Your task to perform on an android device: Open calendar and show me the second week of next month Image 0: 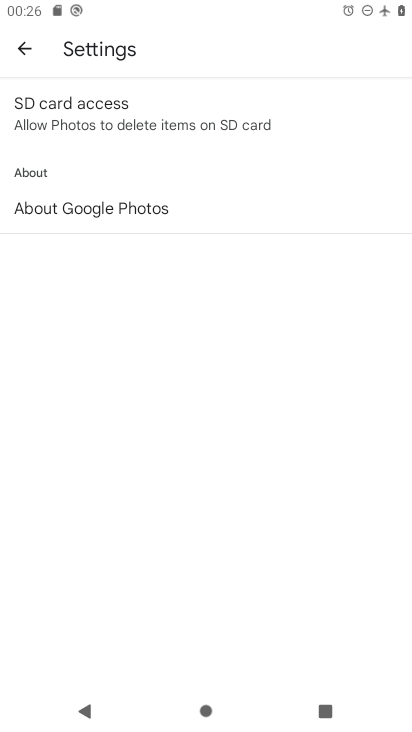
Step 0: press home button
Your task to perform on an android device: Open calendar and show me the second week of next month Image 1: 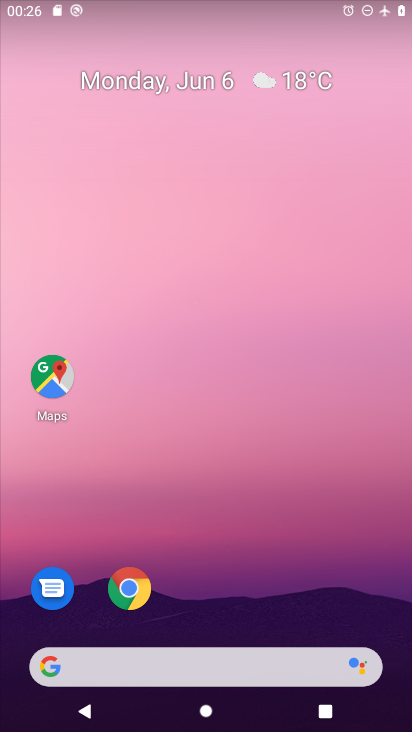
Step 1: drag from (318, 607) to (353, 262)
Your task to perform on an android device: Open calendar and show me the second week of next month Image 2: 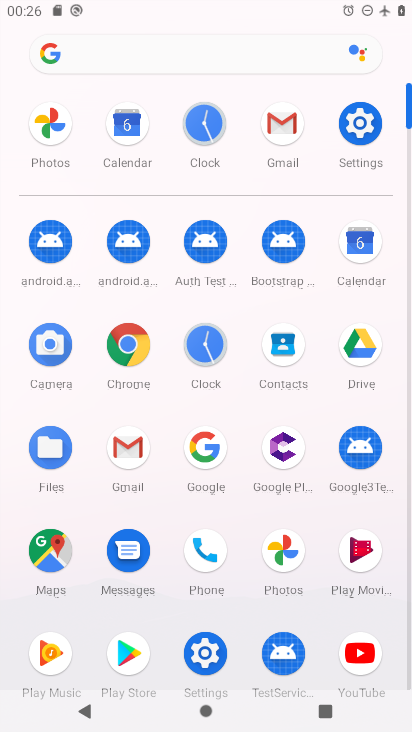
Step 2: click (365, 254)
Your task to perform on an android device: Open calendar and show me the second week of next month Image 3: 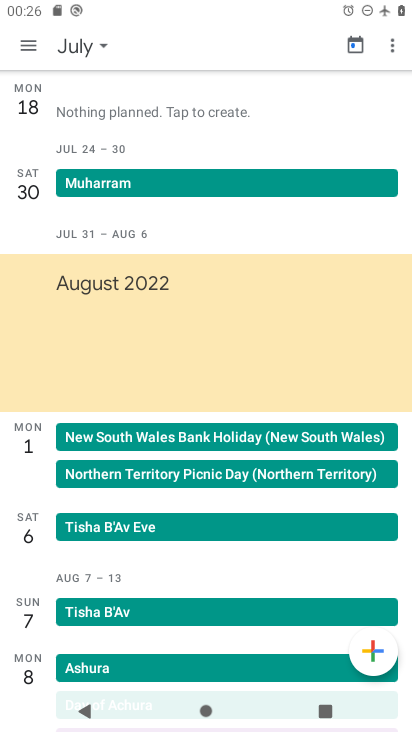
Step 3: click (105, 46)
Your task to perform on an android device: Open calendar and show me the second week of next month Image 4: 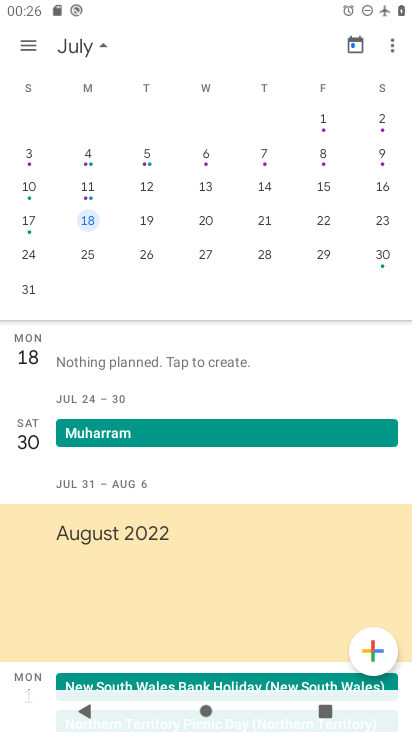
Step 4: click (89, 188)
Your task to perform on an android device: Open calendar and show me the second week of next month Image 5: 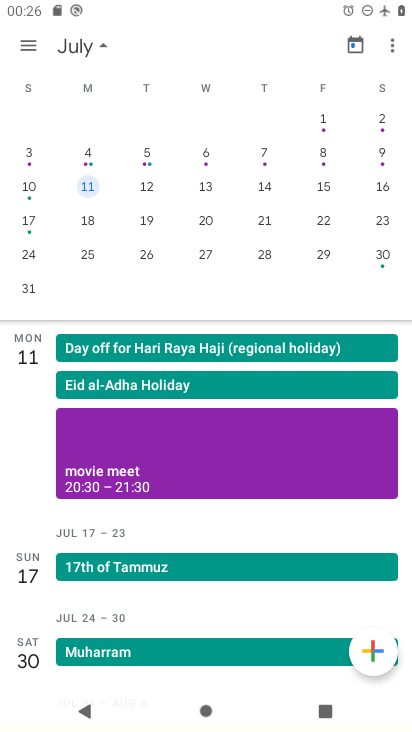
Step 5: task complete